Your task to perform on an android device: Open Android settings Image 0: 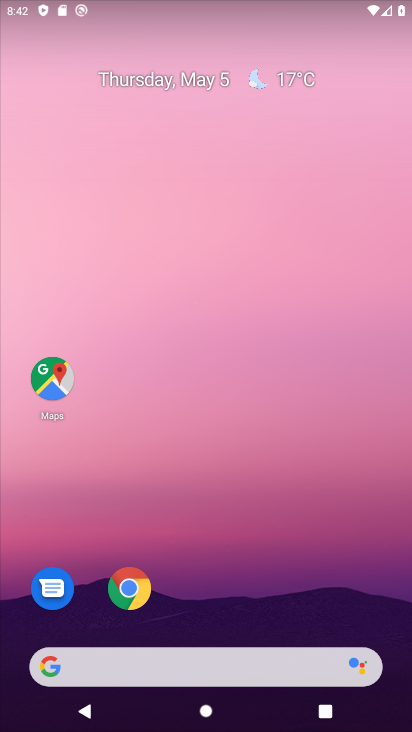
Step 0: drag from (272, 600) to (275, 233)
Your task to perform on an android device: Open Android settings Image 1: 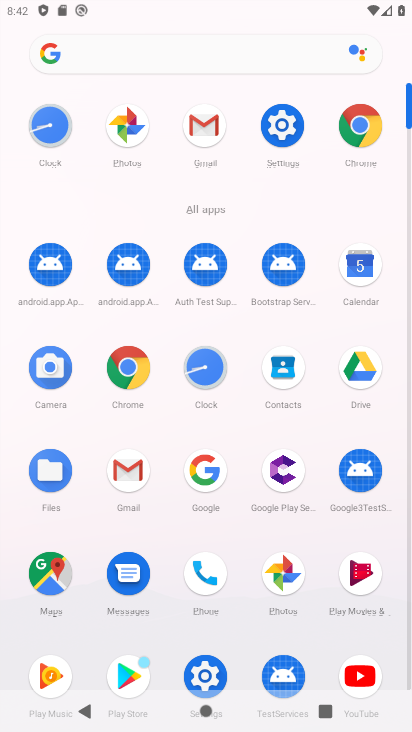
Step 1: click (276, 128)
Your task to perform on an android device: Open Android settings Image 2: 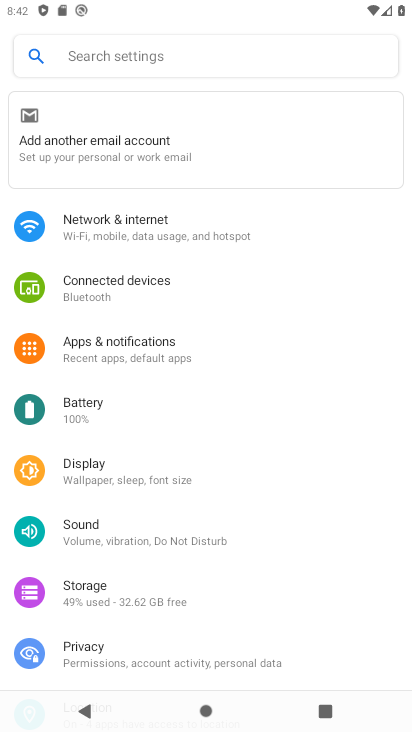
Step 2: drag from (228, 627) to (241, 106)
Your task to perform on an android device: Open Android settings Image 3: 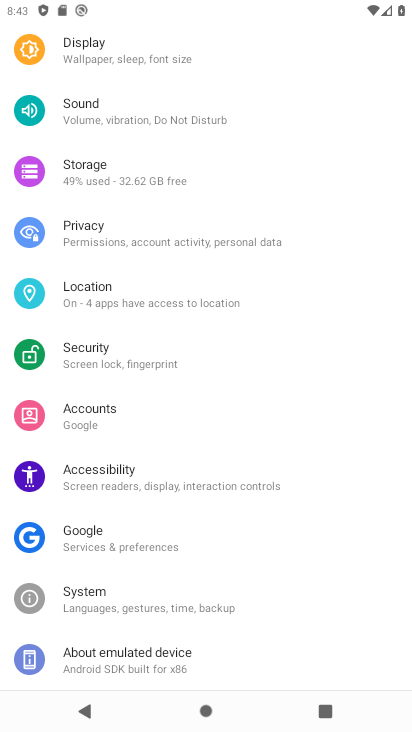
Step 3: click (197, 658)
Your task to perform on an android device: Open Android settings Image 4: 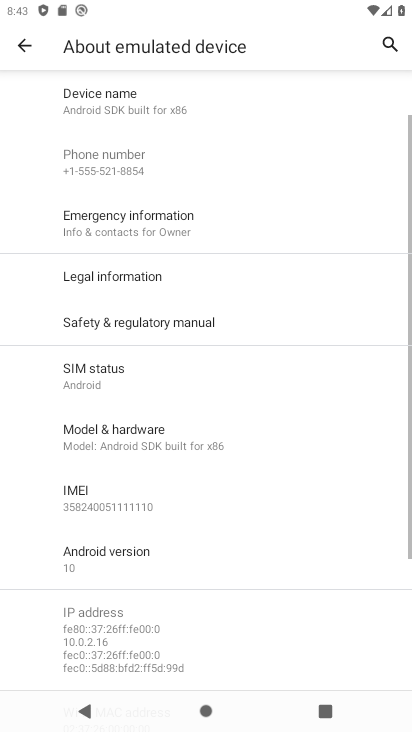
Step 4: task complete